Your task to perform on an android device: open chrome and create a bookmark for the current page Image 0: 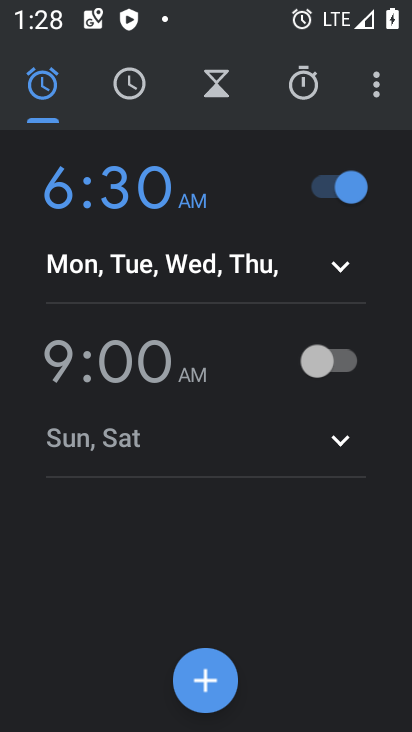
Step 0: press home button
Your task to perform on an android device: open chrome and create a bookmark for the current page Image 1: 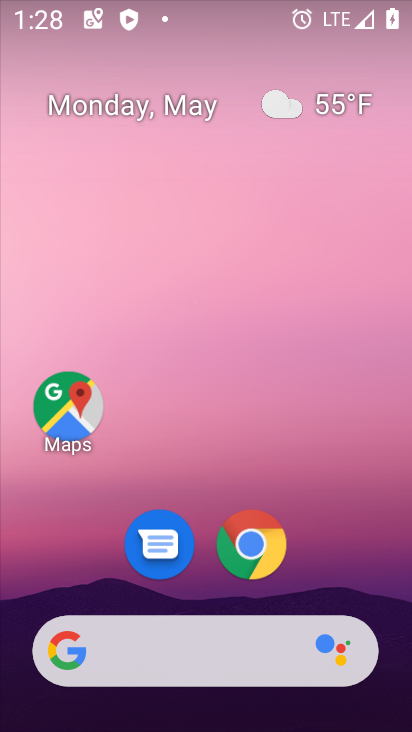
Step 1: click (251, 546)
Your task to perform on an android device: open chrome and create a bookmark for the current page Image 2: 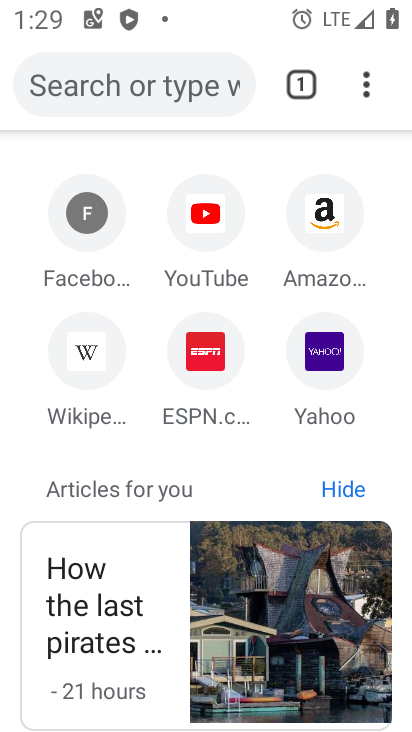
Step 2: click (359, 83)
Your task to perform on an android device: open chrome and create a bookmark for the current page Image 3: 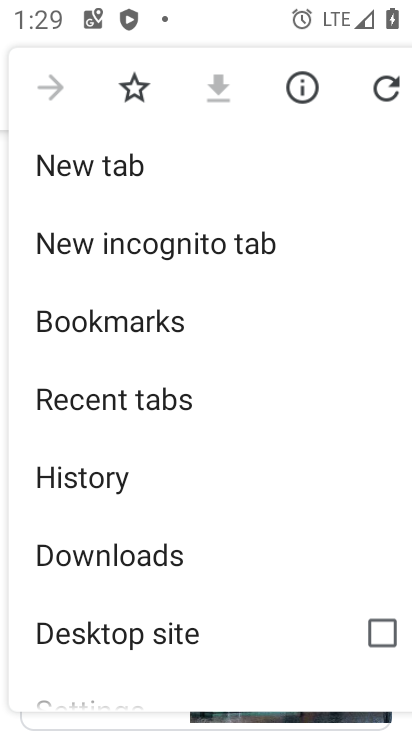
Step 3: click (128, 93)
Your task to perform on an android device: open chrome and create a bookmark for the current page Image 4: 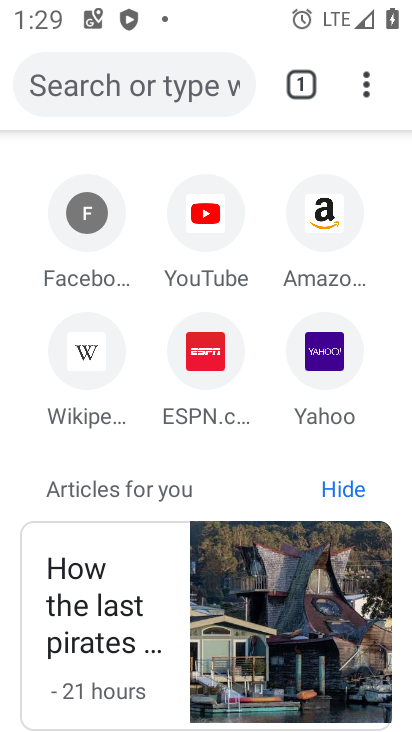
Step 4: task complete